Your task to perform on an android device: change notifications settings Image 0: 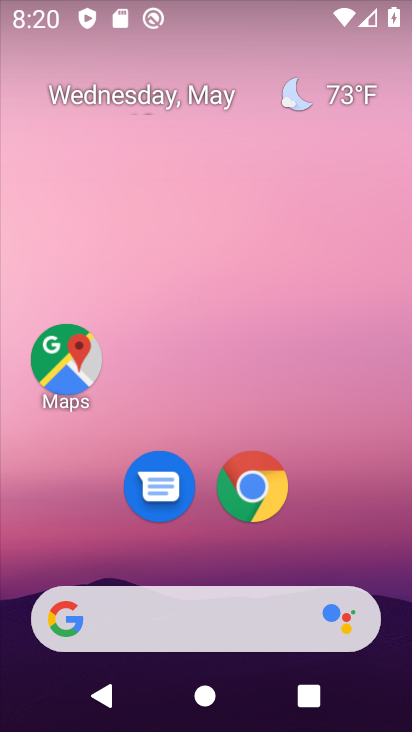
Step 0: drag from (402, 617) to (335, 176)
Your task to perform on an android device: change notifications settings Image 1: 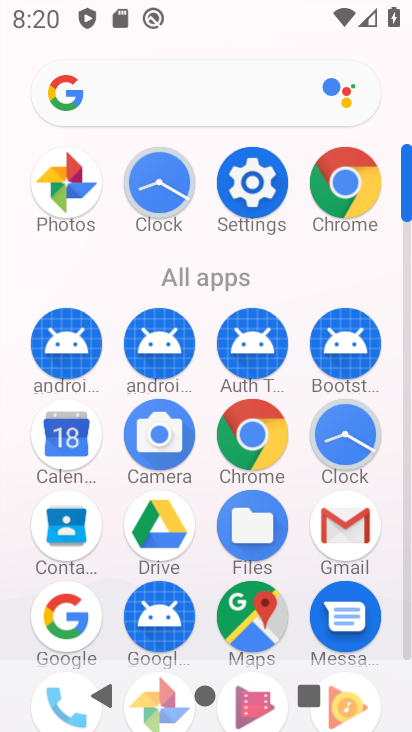
Step 1: click (406, 646)
Your task to perform on an android device: change notifications settings Image 2: 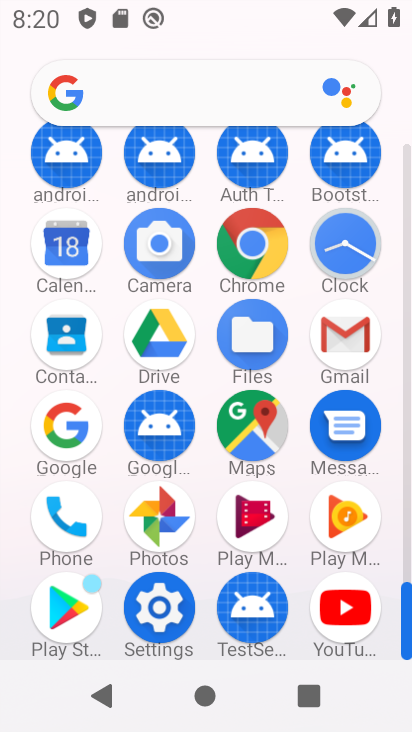
Step 2: click (157, 609)
Your task to perform on an android device: change notifications settings Image 3: 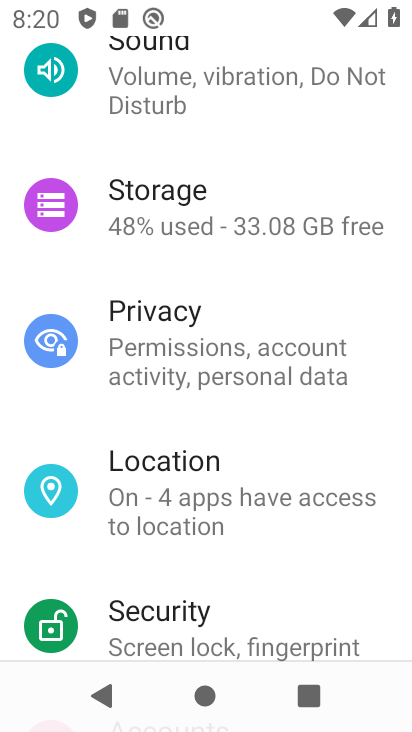
Step 3: drag from (378, 401) to (350, 604)
Your task to perform on an android device: change notifications settings Image 4: 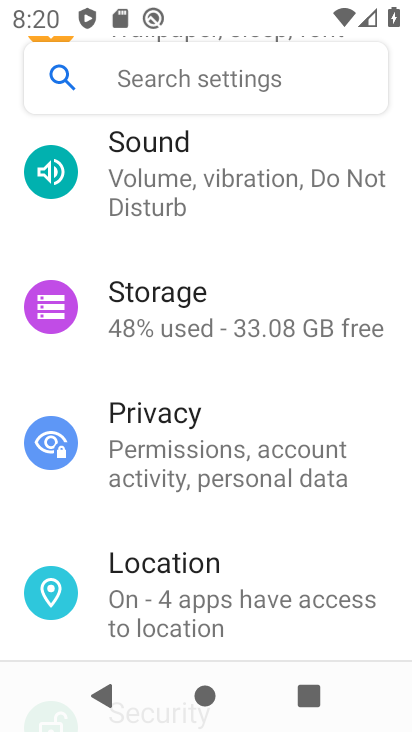
Step 4: drag from (389, 179) to (349, 521)
Your task to perform on an android device: change notifications settings Image 5: 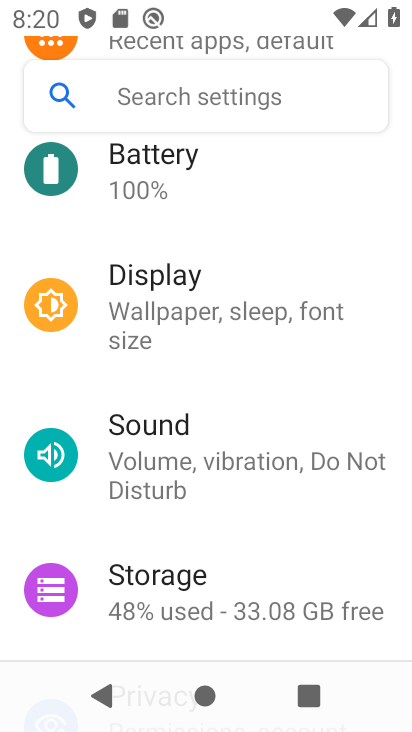
Step 5: drag from (361, 211) to (346, 535)
Your task to perform on an android device: change notifications settings Image 6: 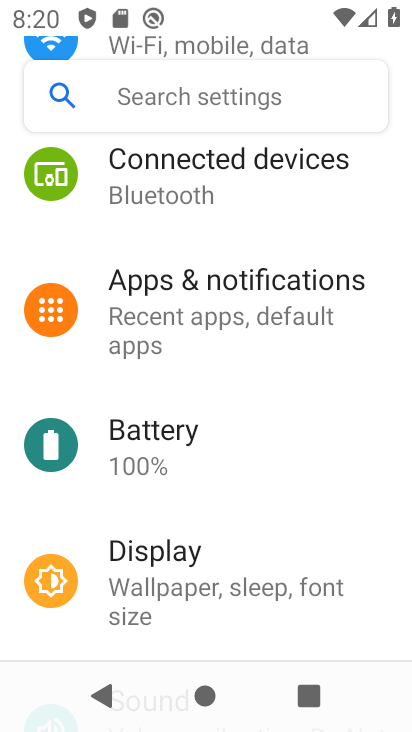
Step 6: click (178, 294)
Your task to perform on an android device: change notifications settings Image 7: 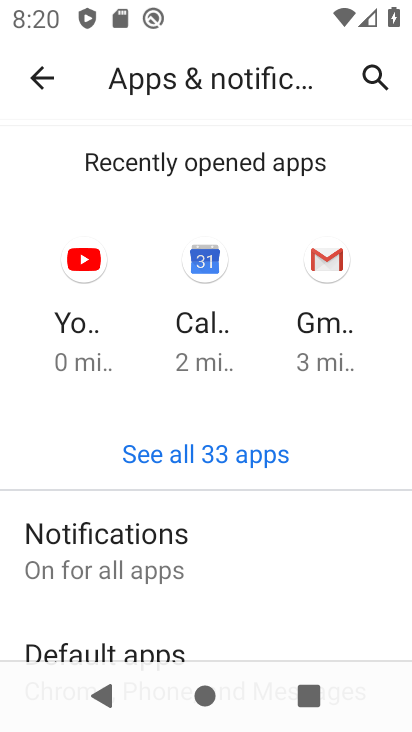
Step 7: click (138, 543)
Your task to perform on an android device: change notifications settings Image 8: 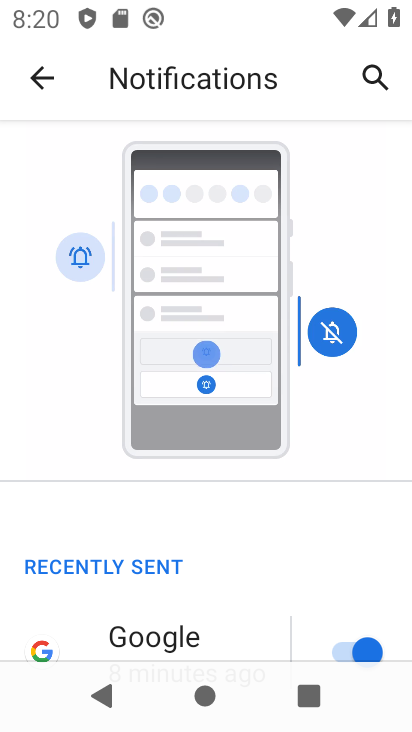
Step 8: drag from (287, 623) to (247, 172)
Your task to perform on an android device: change notifications settings Image 9: 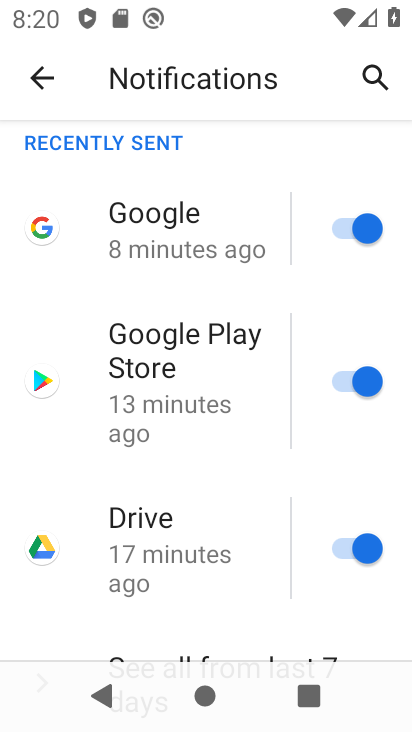
Step 9: drag from (289, 609) to (276, 91)
Your task to perform on an android device: change notifications settings Image 10: 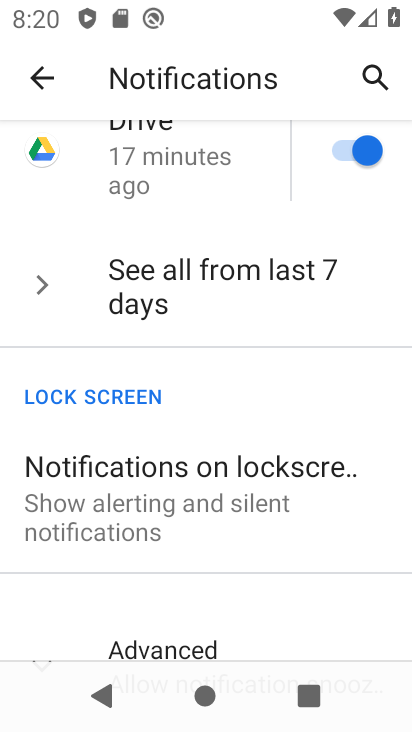
Step 10: drag from (283, 549) to (286, 160)
Your task to perform on an android device: change notifications settings Image 11: 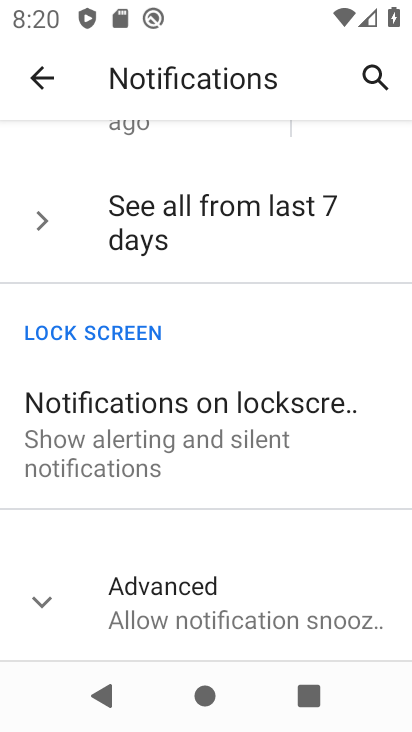
Step 11: click (37, 604)
Your task to perform on an android device: change notifications settings Image 12: 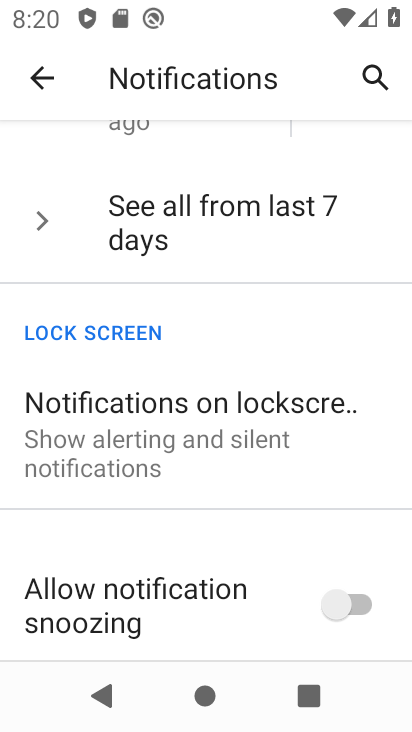
Step 12: drag from (314, 588) to (297, 233)
Your task to perform on an android device: change notifications settings Image 13: 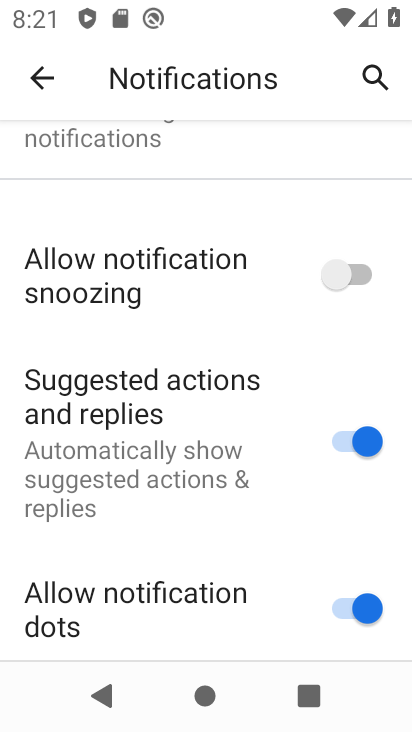
Step 13: click (351, 268)
Your task to perform on an android device: change notifications settings Image 14: 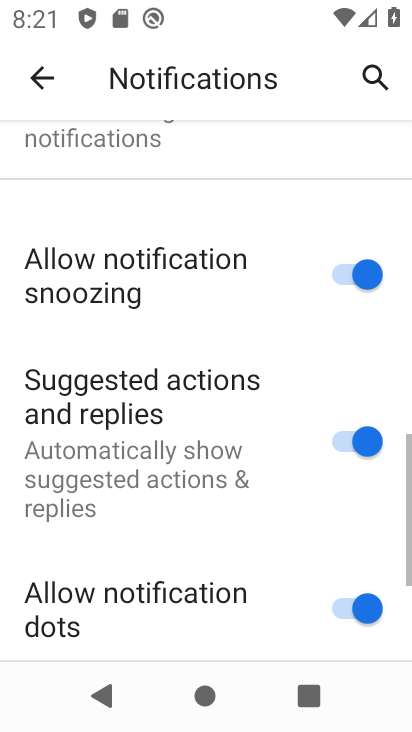
Step 14: drag from (226, 528) to (250, 246)
Your task to perform on an android device: change notifications settings Image 15: 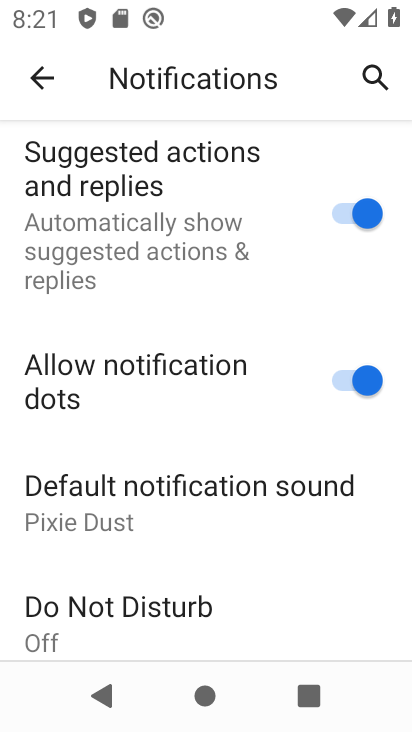
Step 15: click (341, 381)
Your task to perform on an android device: change notifications settings Image 16: 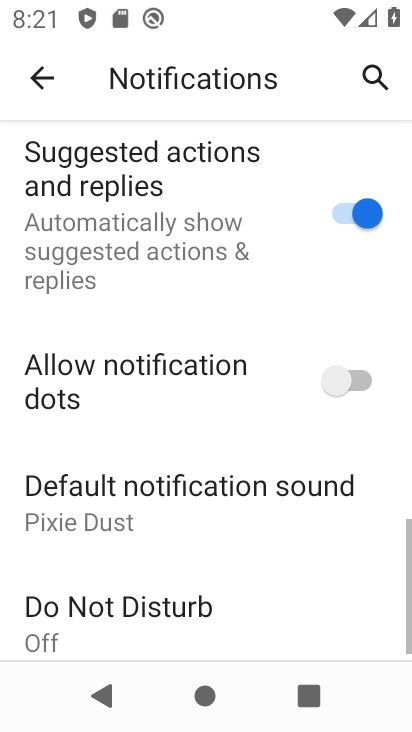
Step 16: task complete